Your task to perform on an android device: open app "Life360: Find Family & Friends" (install if not already installed), go to login, and select forgot password Image 0: 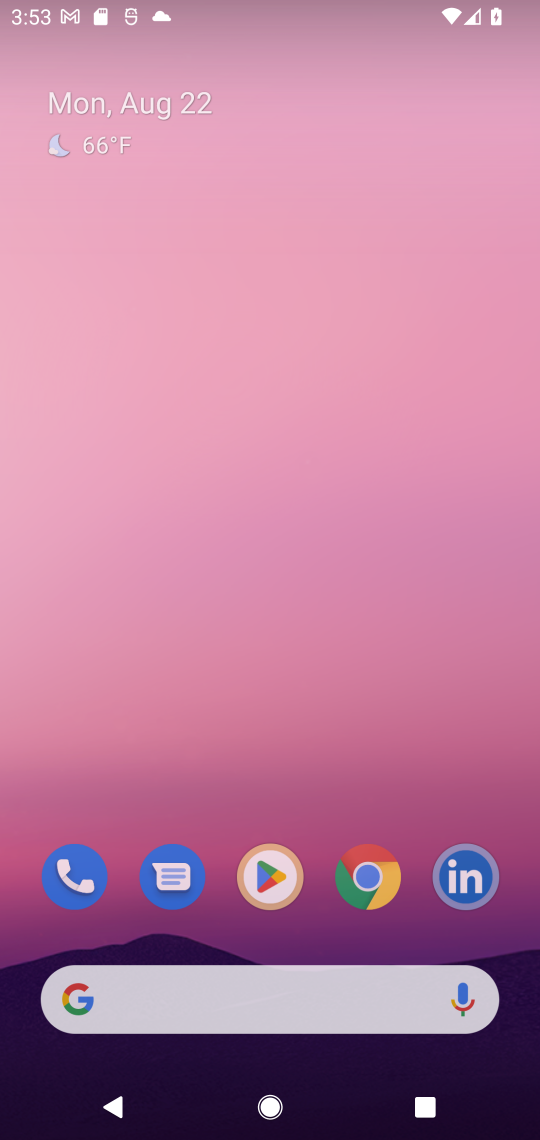
Step 0: press home button
Your task to perform on an android device: open app "Life360: Find Family & Friends" (install if not already installed), go to login, and select forgot password Image 1: 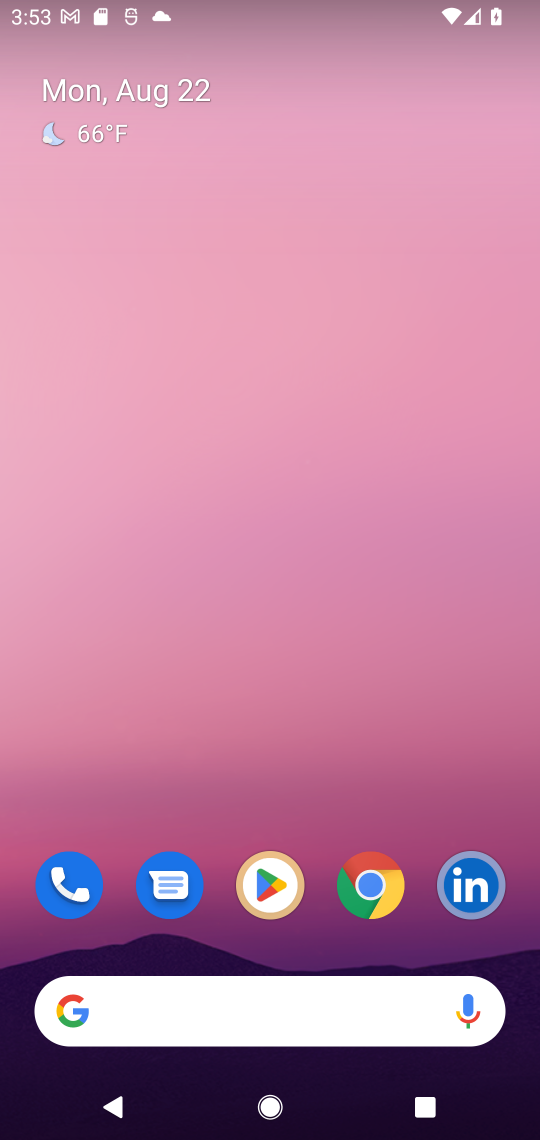
Step 1: click (265, 878)
Your task to perform on an android device: open app "Life360: Find Family & Friends" (install if not already installed), go to login, and select forgot password Image 2: 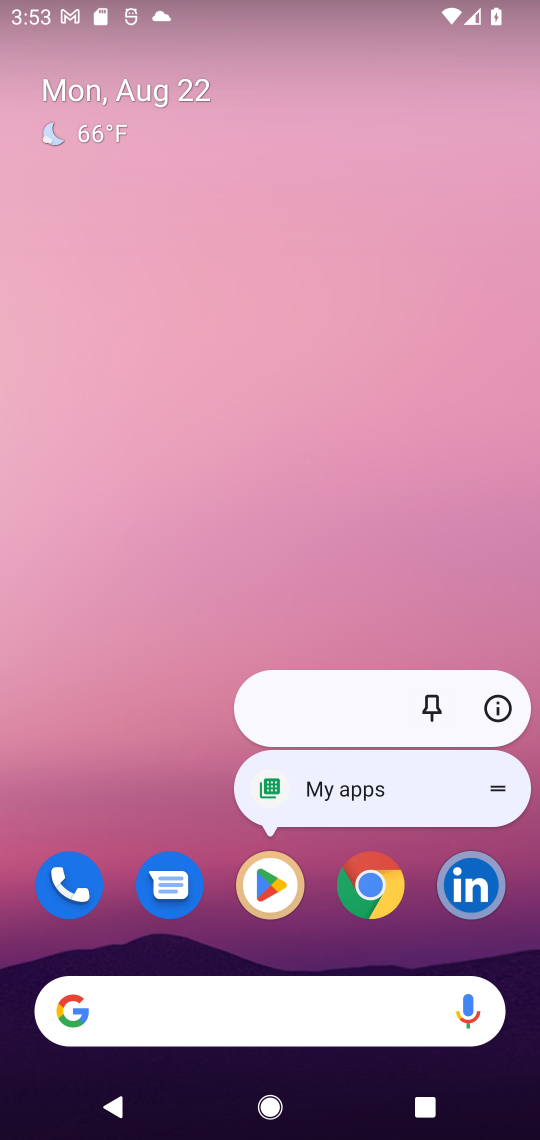
Step 2: click (265, 878)
Your task to perform on an android device: open app "Life360: Find Family & Friends" (install if not already installed), go to login, and select forgot password Image 3: 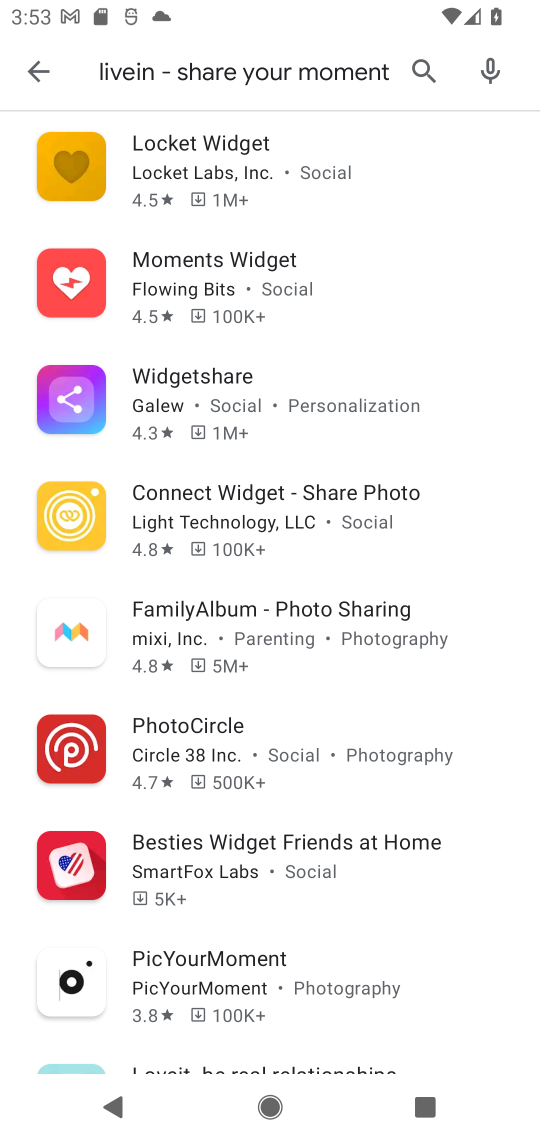
Step 3: click (420, 68)
Your task to perform on an android device: open app "Life360: Find Family & Friends" (install if not already installed), go to login, and select forgot password Image 4: 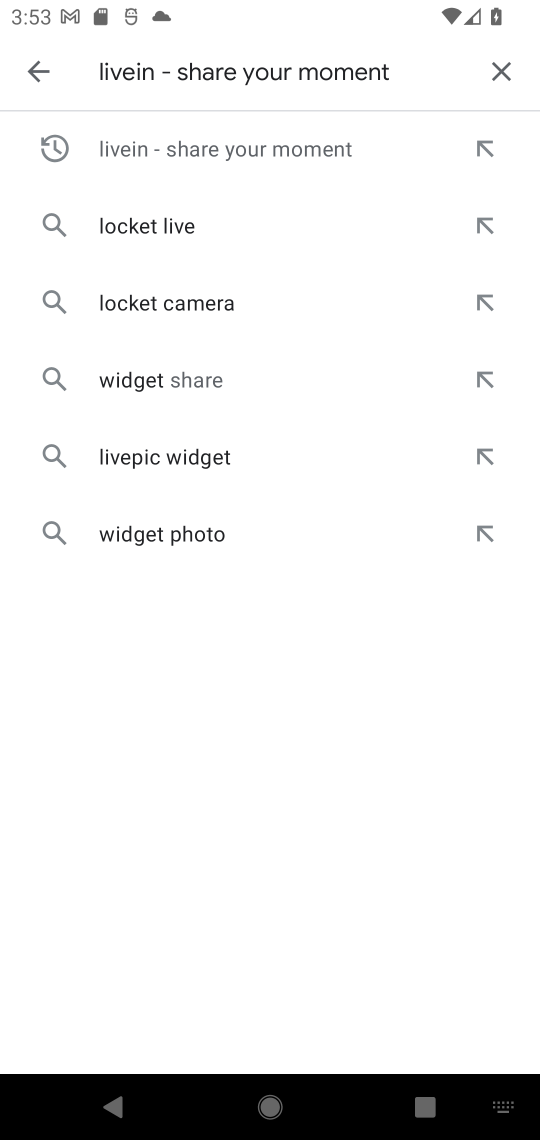
Step 4: click (499, 78)
Your task to perform on an android device: open app "Life360: Find Family & Friends" (install if not already installed), go to login, and select forgot password Image 5: 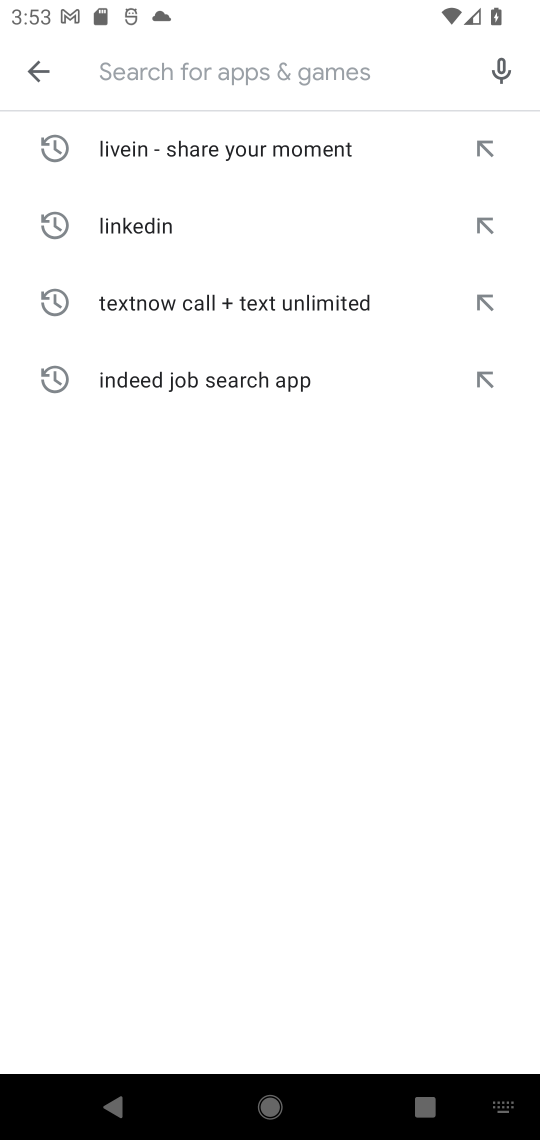
Step 5: type "Life360: Find Family & Friends"
Your task to perform on an android device: open app "Life360: Find Family & Friends" (install if not already installed), go to login, and select forgot password Image 6: 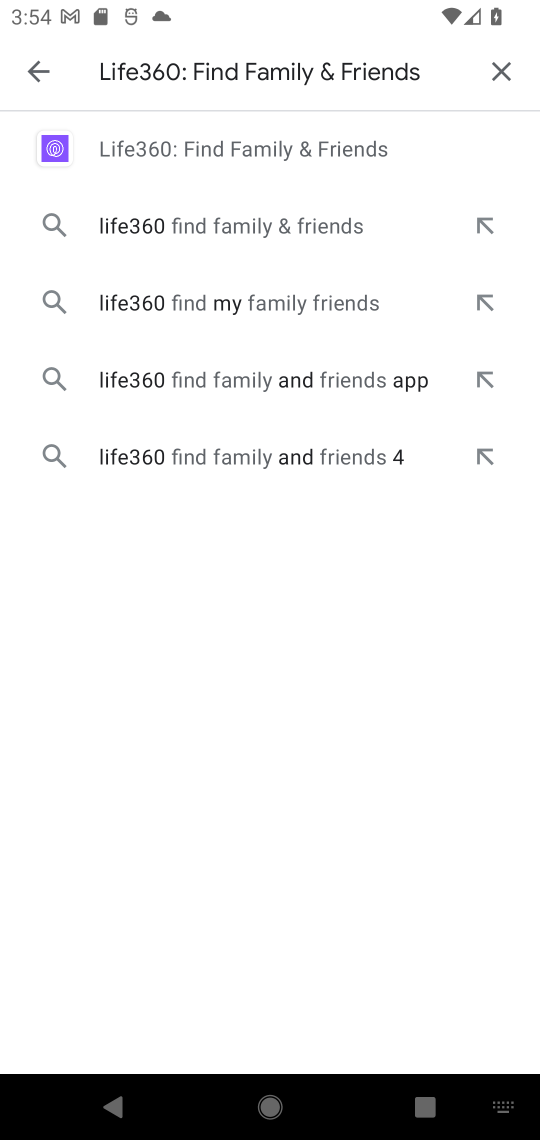
Step 6: click (213, 144)
Your task to perform on an android device: open app "Life360: Find Family & Friends" (install if not already installed), go to login, and select forgot password Image 7: 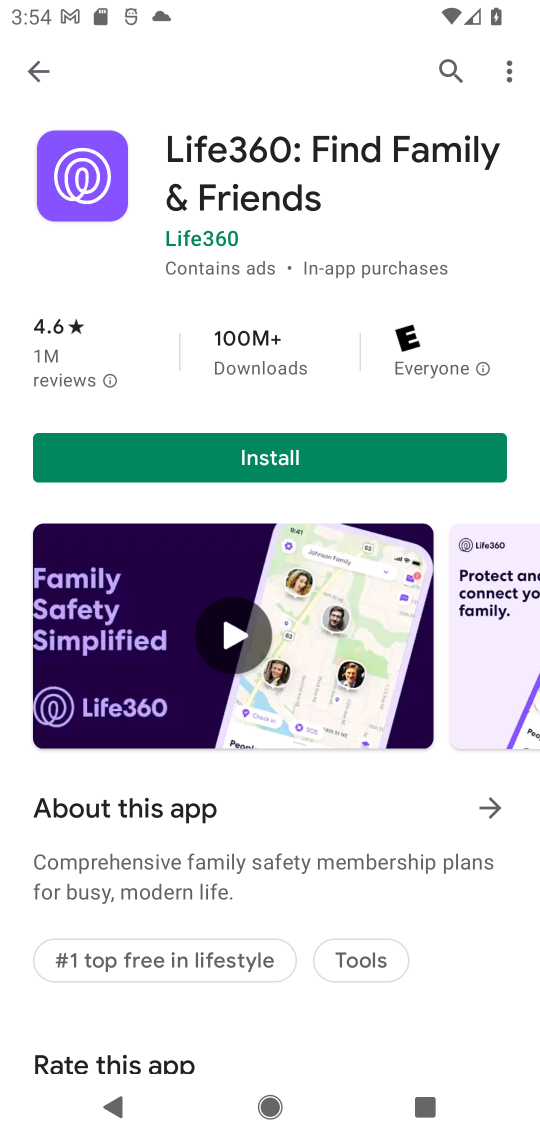
Step 7: click (266, 454)
Your task to perform on an android device: open app "Life360: Find Family & Friends" (install if not already installed), go to login, and select forgot password Image 8: 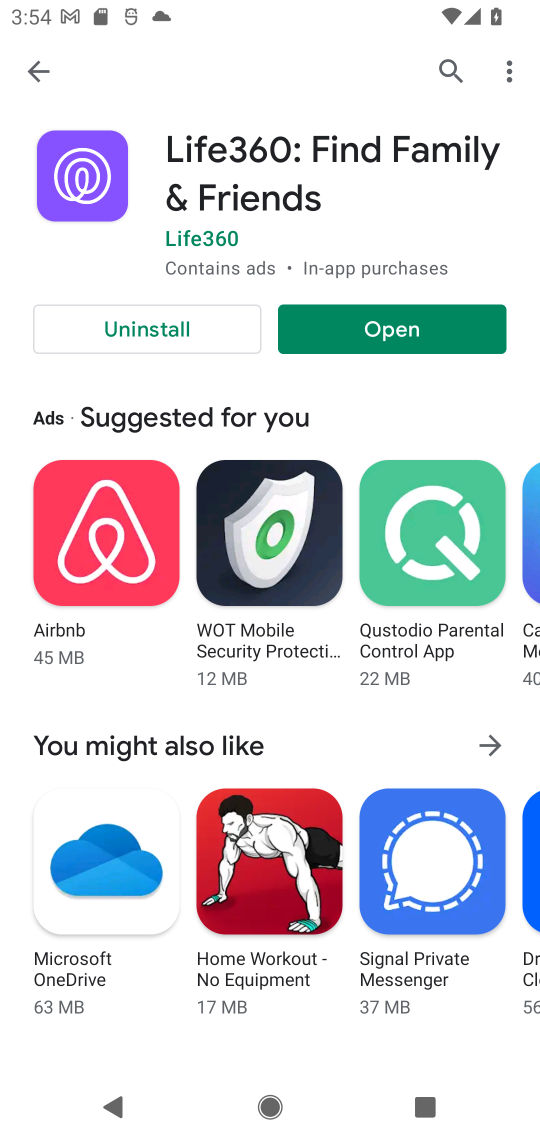
Step 8: click (448, 315)
Your task to perform on an android device: open app "Life360: Find Family & Friends" (install if not already installed), go to login, and select forgot password Image 9: 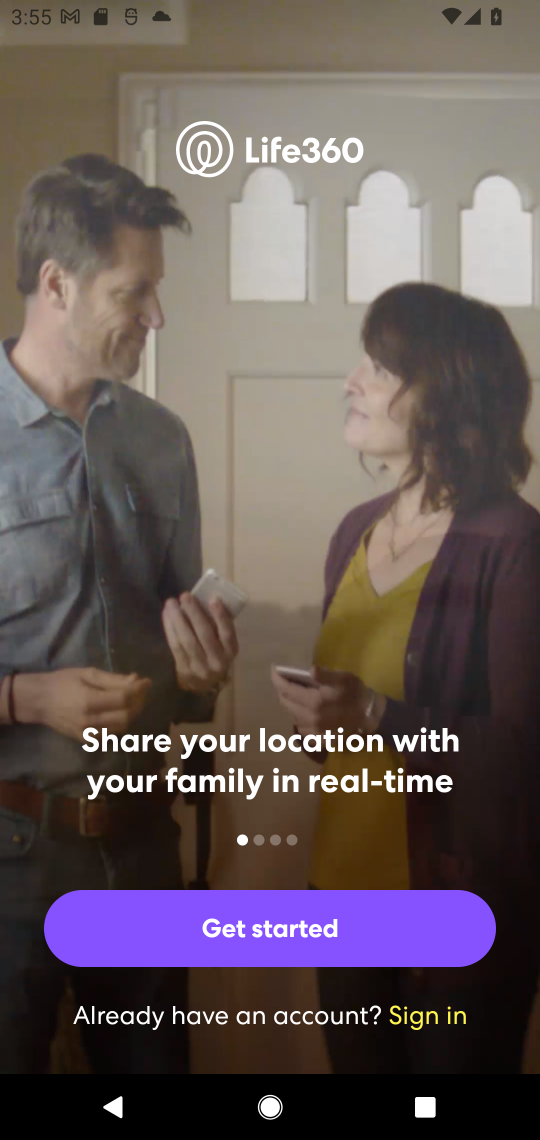
Step 9: click (266, 942)
Your task to perform on an android device: open app "Life360: Find Family & Friends" (install if not already installed), go to login, and select forgot password Image 10: 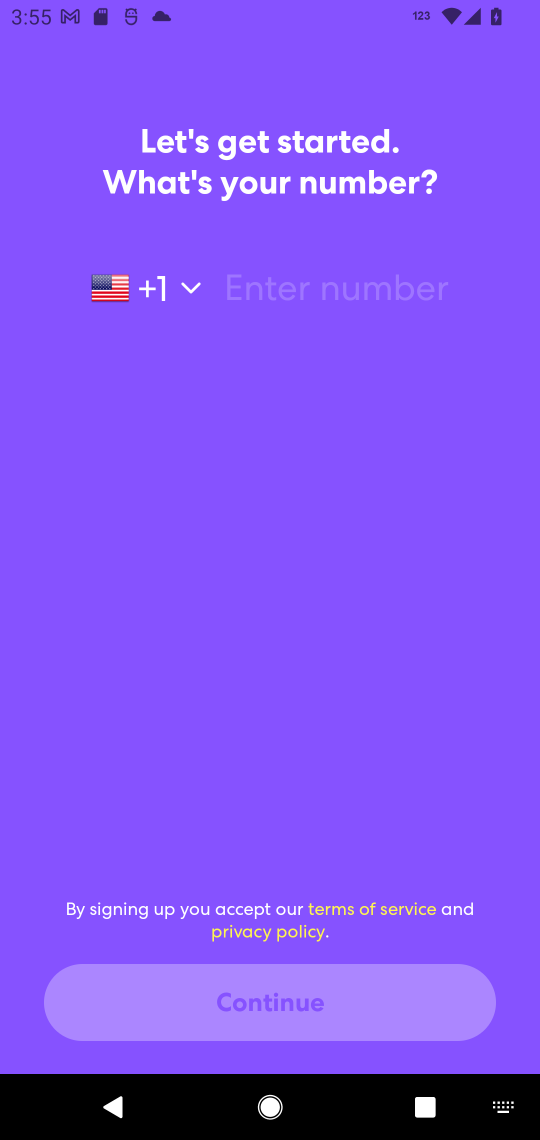
Step 10: click (324, 291)
Your task to perform on an android device: open app "Life360: Find Family & Friends" (install if not already installed), go to login, and select forgot password Image 11: 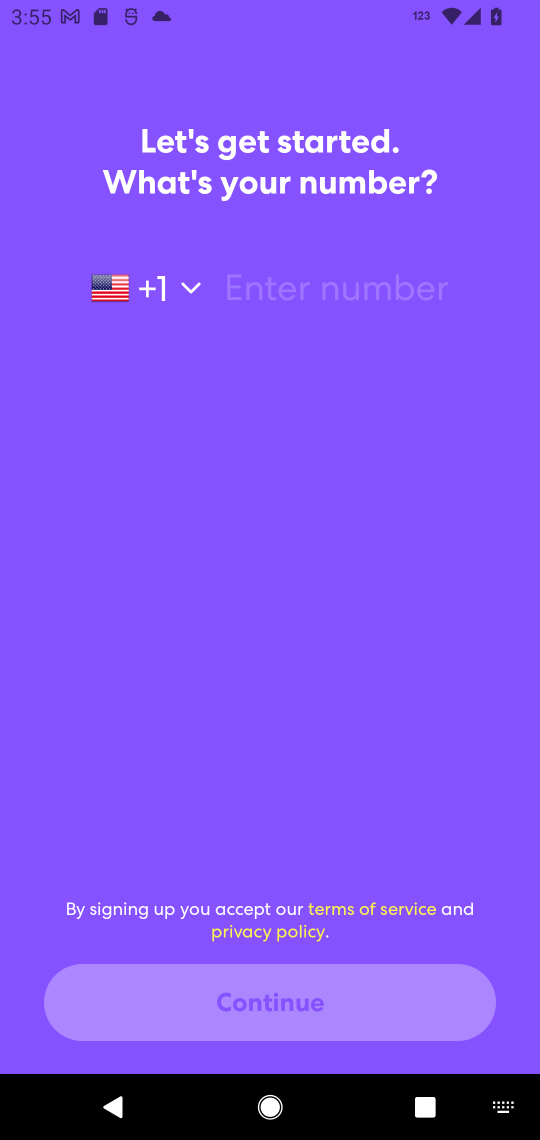
Step 11: task complete